Your task to perform on an android device: check battery use Image 0: 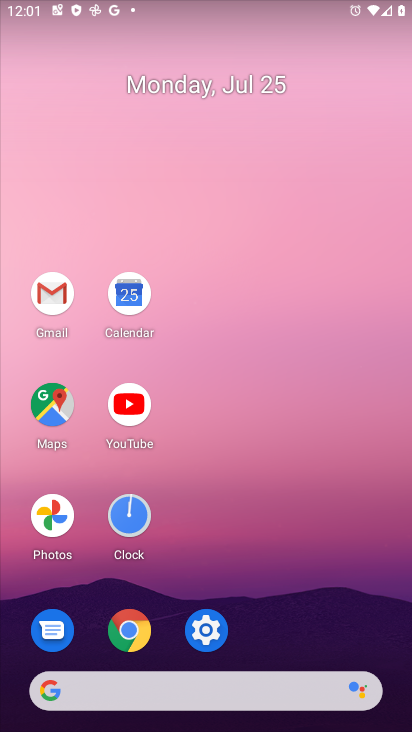
Step 0: click (202, 631)
Your task to perform on an android device: check battery use Image 1: 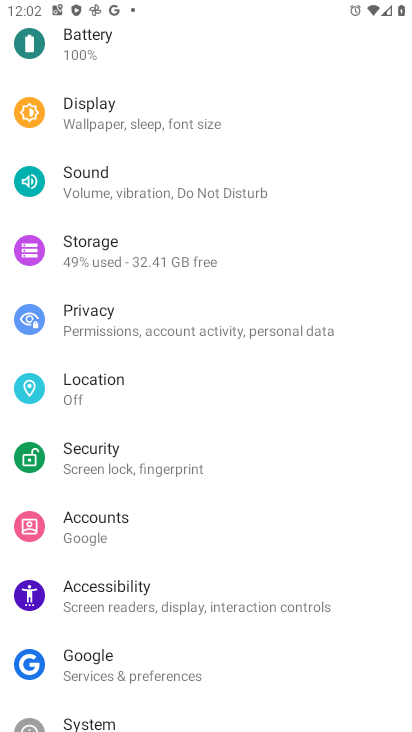
Step 1: click (76, 41)
Your task to perform on an android device: check battery use Image 2: 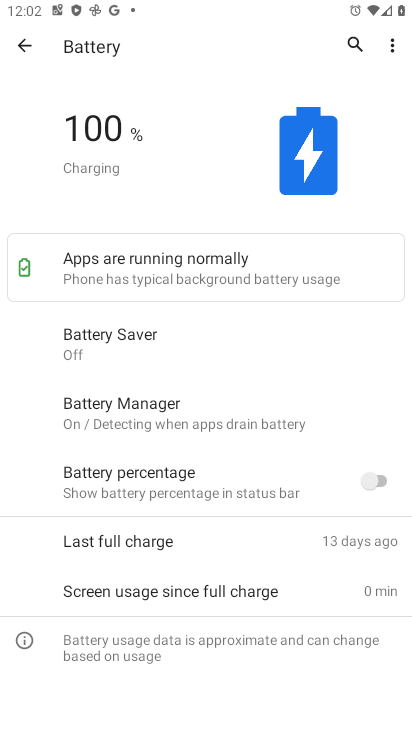
Step 2: task complete